Your task to perform on an android device: Go to calendar. Show me events next week Image 0: 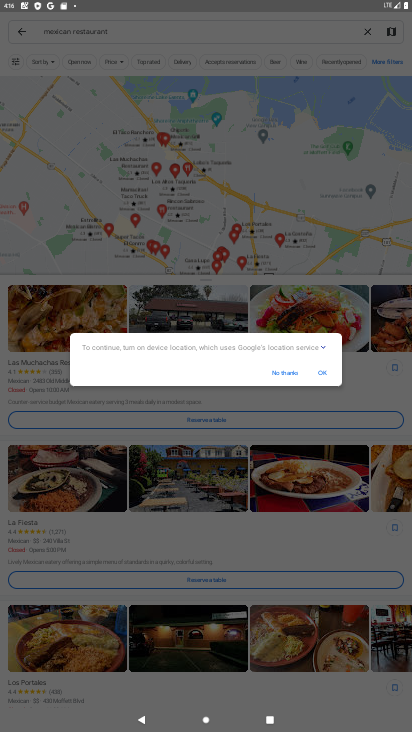
Step 0: press home button
Your task to perform on an android device: Go to calendar. Show me events next week Image 1: 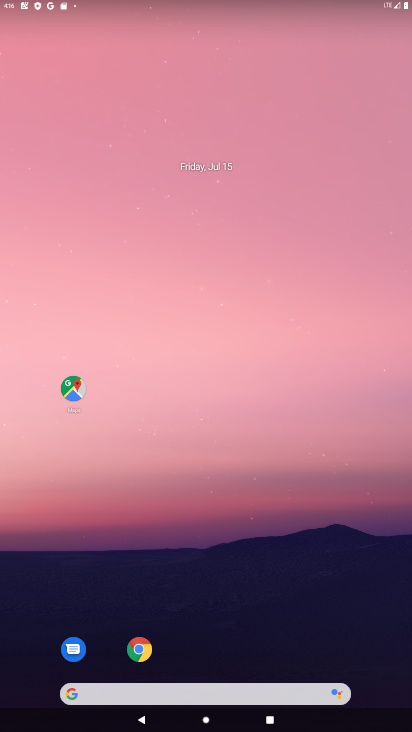
Step 1: drag from (216, 613) to (208, 148)
Your task to perform on an android device: Go to calendar. Show me events next week Image 2: 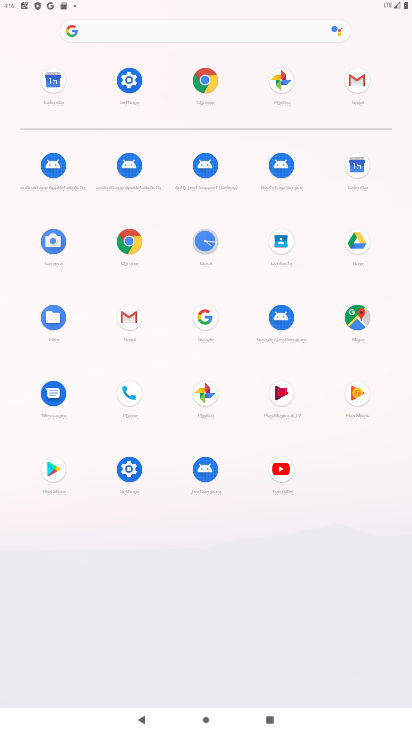
Step 2: click (369, 175)
Your task to perform on an android device: Go to calendar. Show me events next week Image 3: 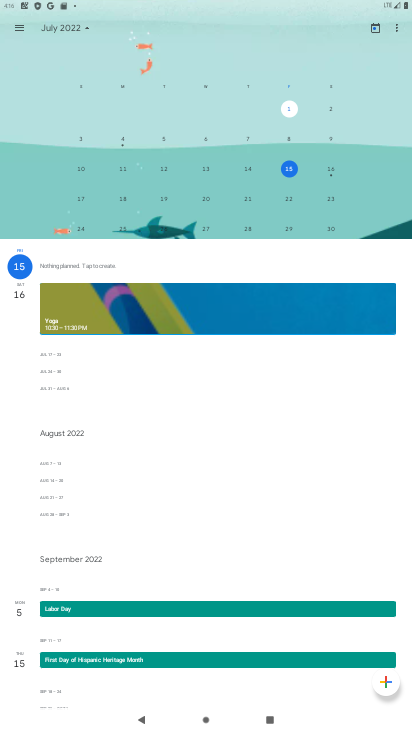
Step 3: click (82, 30)
Your task to perform on an android device: Go to calendar. Show me events next week Image 4: 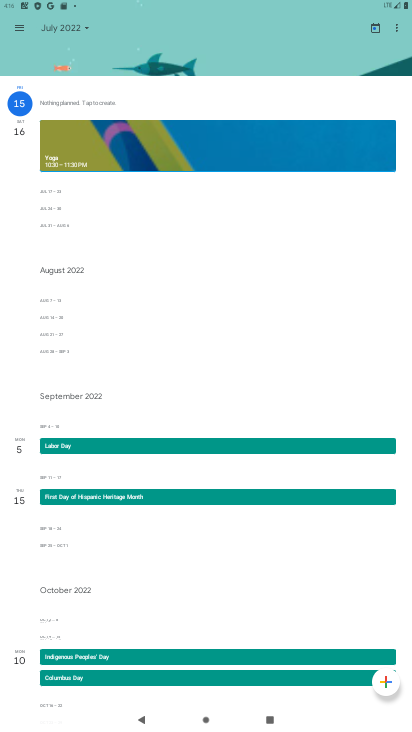
Step 4: click (73, 32)
Your task to perform on an android device: Go to calendar. Show me events next week Image 5: 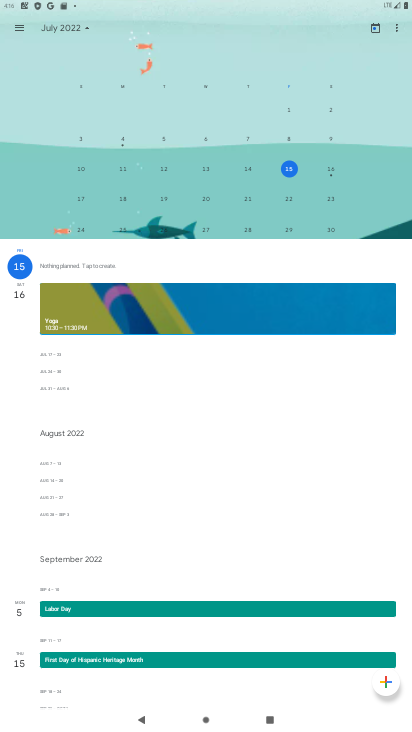
Step 5: click (170, 190)
Your task to perform on an android device: Go to calendar. Show me events next week Image 6: 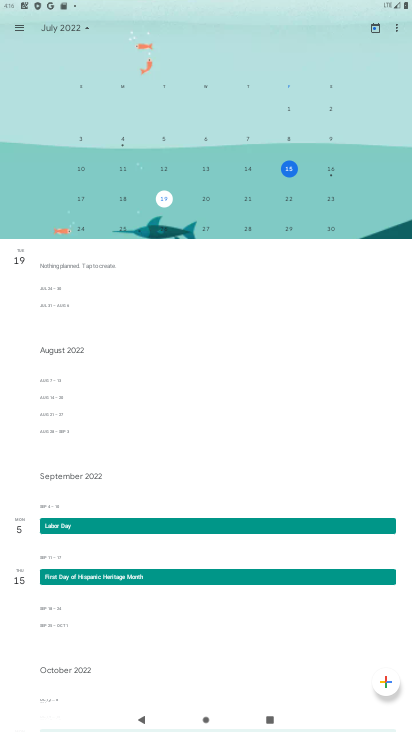
Step 6: click (85, 200)
Your task to perform on an android device: Go to calendar. Show me events next week Image 7: 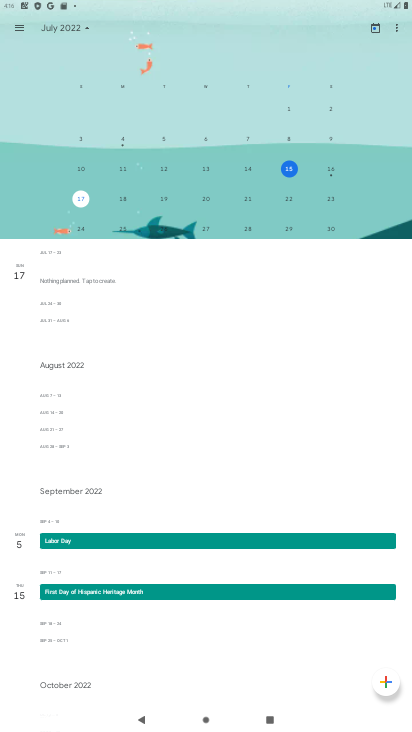
Step 7: task complete